Your task to perform on an android device: Go to accessibility settings Image 0: 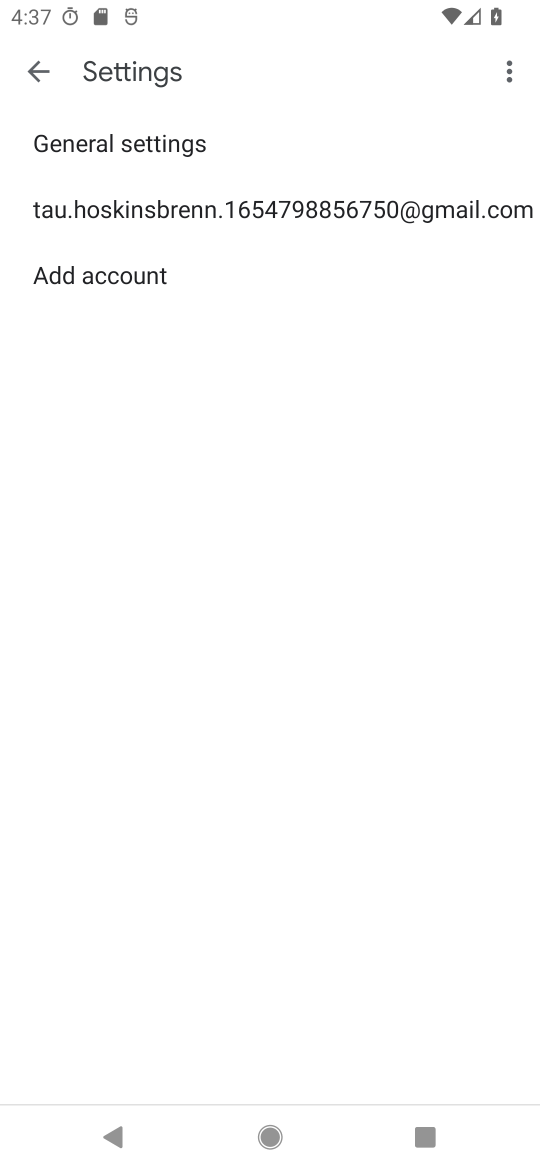
Step 0: press home button
Your task to perform on an android device: Go to accessibility settings Image 1: 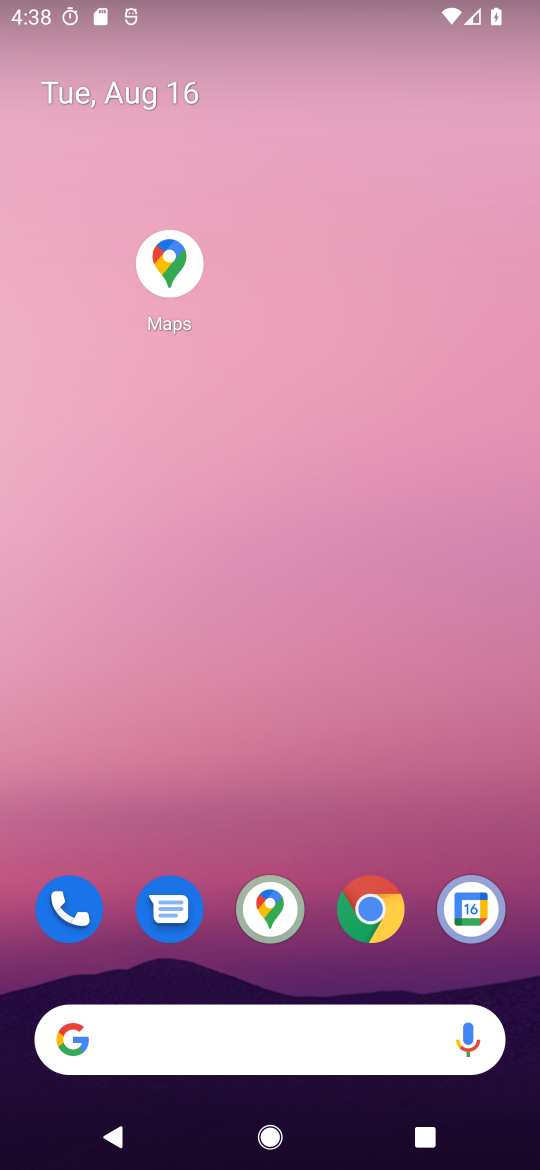
Step 1: drag from (231, 967) to (203, 207)
Your task to perform on an android device: Go to accessibility settings Image 2: 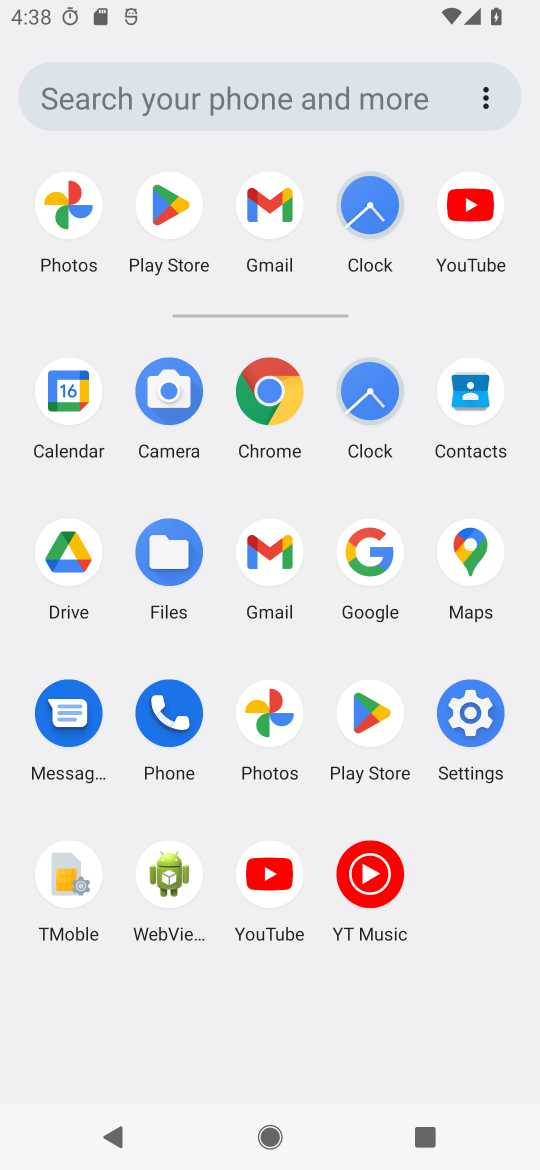
Step 2: click (475, 724)
Your task to perform on an android device: Go to accessibility settings Image 3: 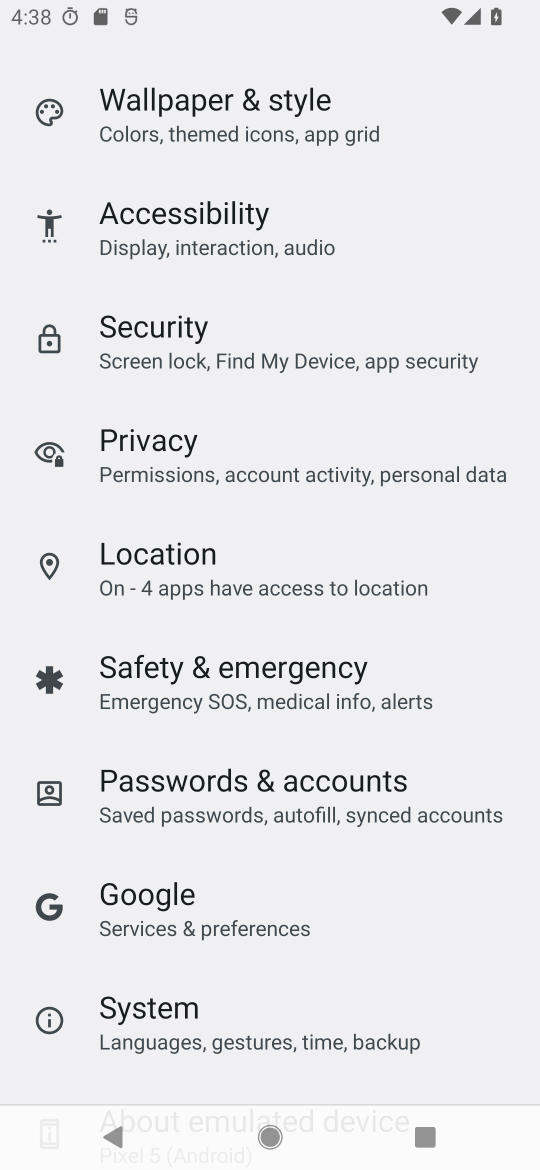
Step 3: click (269, 245)
Your task to perform on an android device: Go to accessibility settings Image 4: 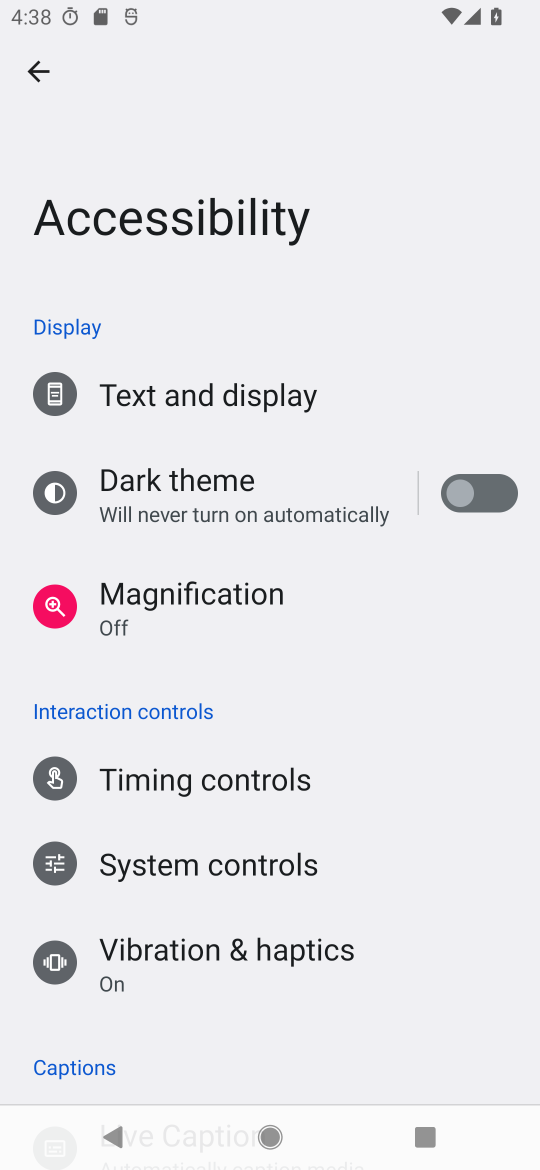
Step 4: task complete